Your task to perform on an android device: Go to Google Image 0: 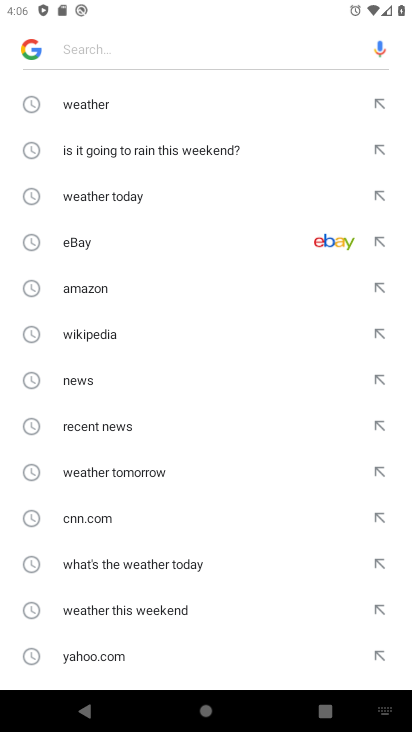
Step 0: press home button
Your task to perform on an android device: Go to Google Image 1: 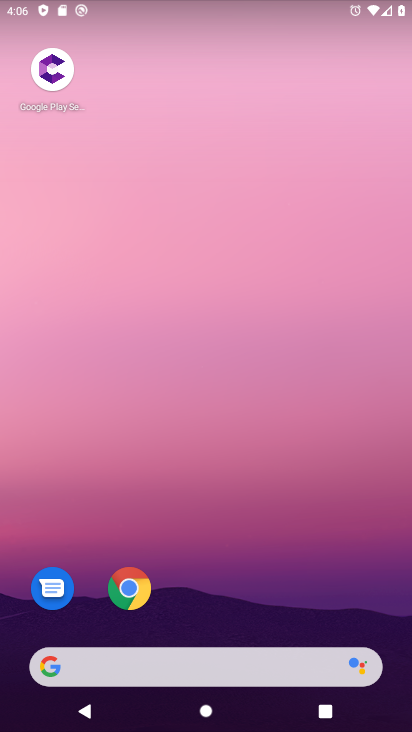
Step 1: drag from (183, 657) to (322, 13)
Your task to perform on an android device: Go to Google Image 2: 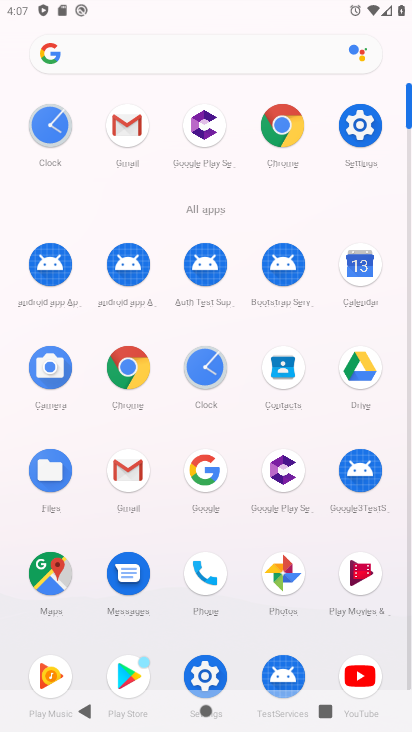
Step 2: click (205, 468)
Your task to perform on an android device: Go to Google Image 3: 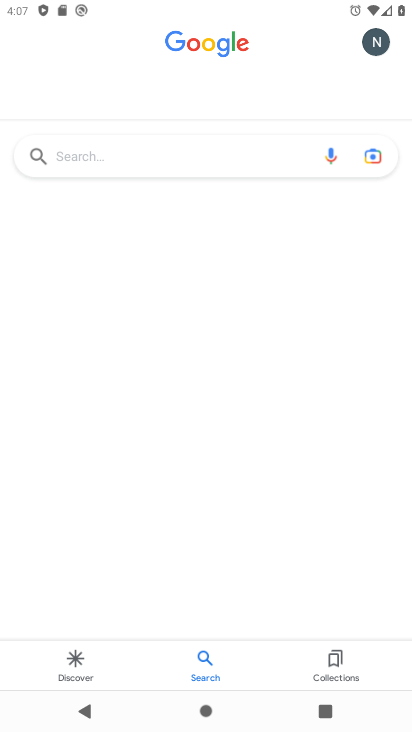
Step 3: task complete